Your task to perform on an android device: Is it going to rain today? Image 0: 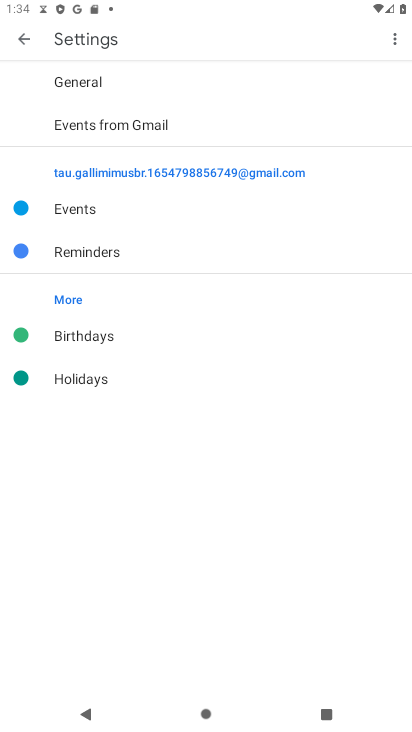
Step 0: press home button
Your task to perform on an android device: Is it going to rain today? Image 1: 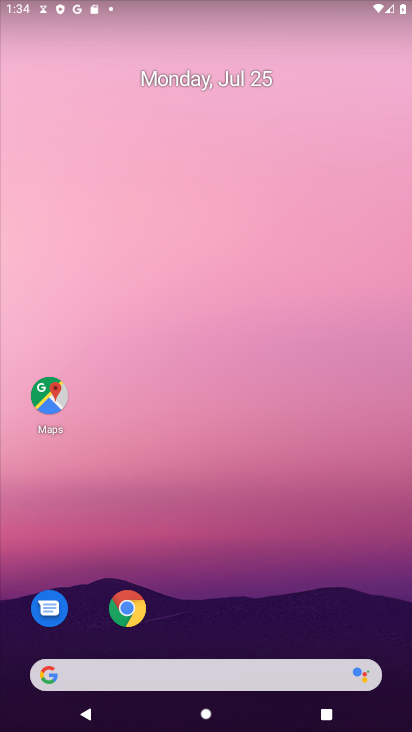
Step 1: drag from (193, 676) to (196, 68)
Your task to perform on an android device: Is it going to rain today? Image 2: 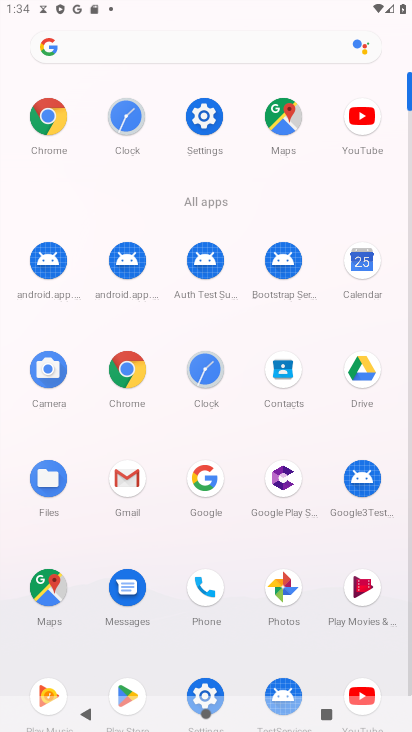
Step 2: click (203, 476)
Your task to perform on an android device: Is it going to rain today? Image 3: 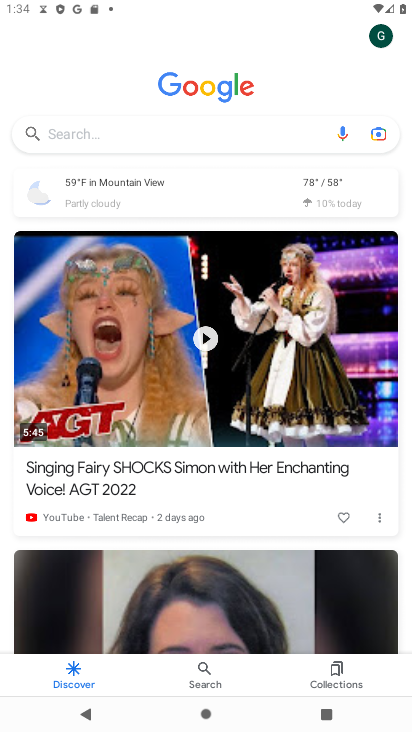
Step 3: click (251, 135)
Your task to perform on an android device: Is it going to rain today? Image 4: 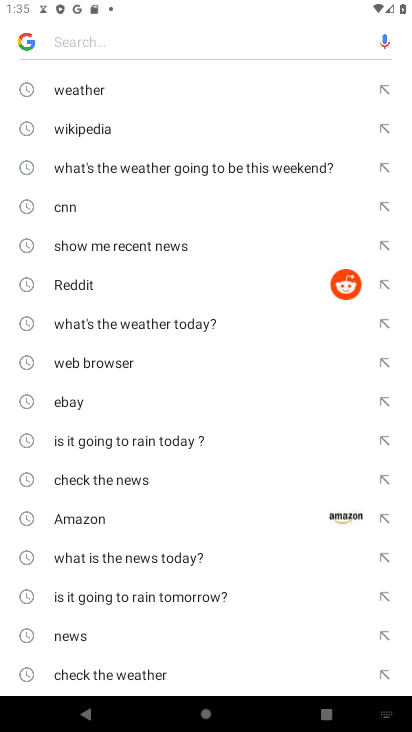
Step 4: type "Is it going to rain today?"
Your task to perform on an android device: Is it going to rain today? Image 5: 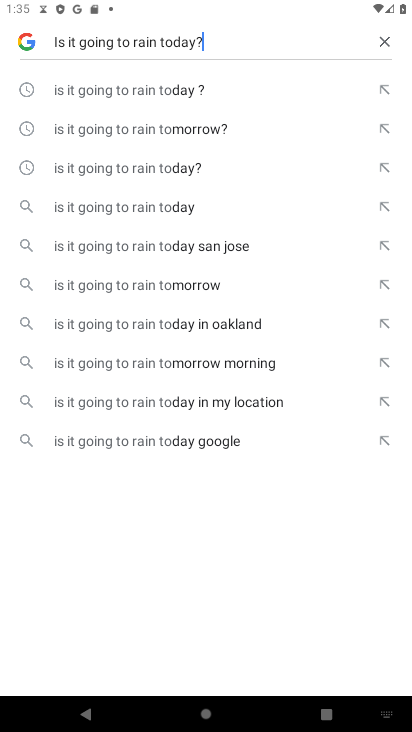
Step 5: type ""
Your task to perform on an android device: Is it going to rain today? Image 6: 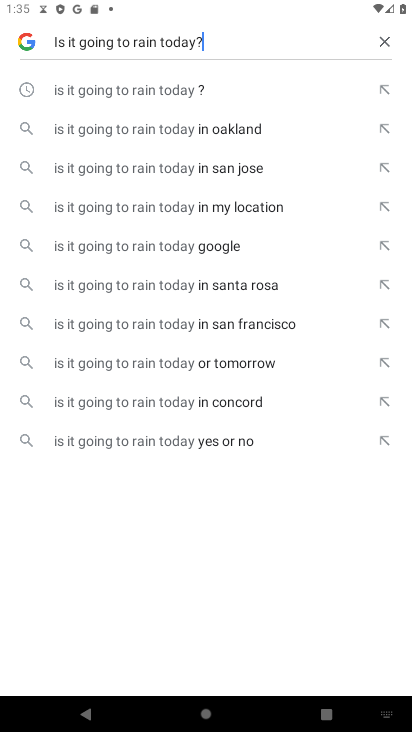
Step 6: click (151, 94)
Your task to perform on an android device: Is it going to rain today? Image 7: 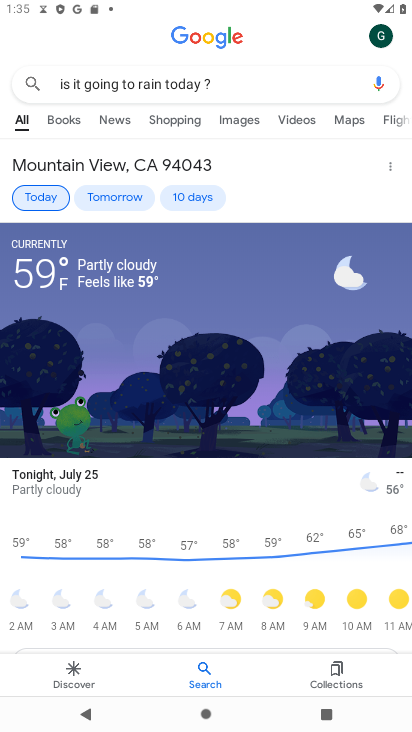
Step 7: task complete